Your task to perform on an android device: make emails show in primary in the gmail app Image 0: 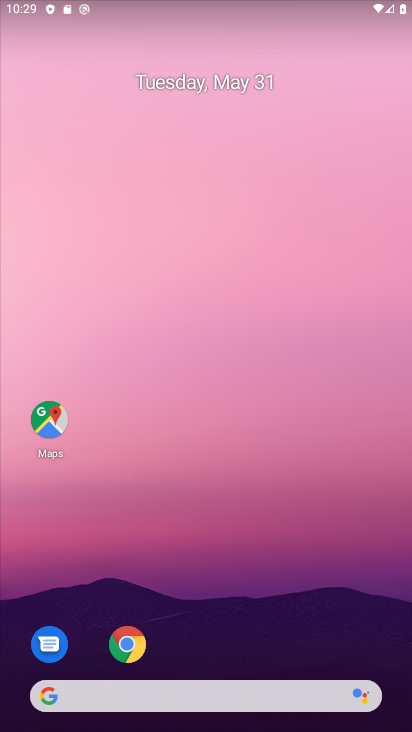
Step 0: drag from (231, 332) to (275, 164)
Your task to perform on an android device: make emails show in primary in the gmail app Image 1: 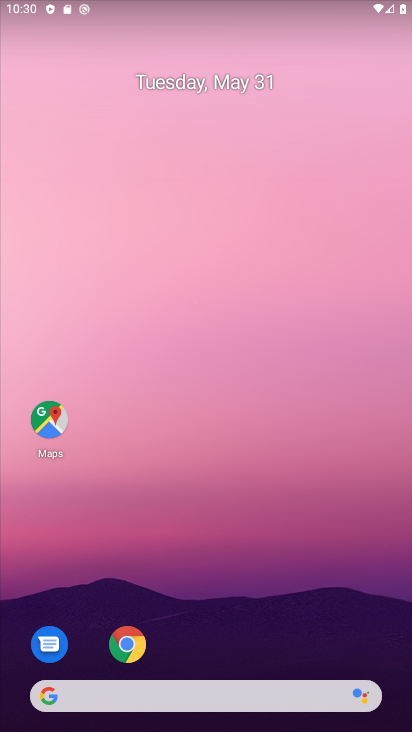
Step 1: drag from (278, 635) to (381, 157)
Your task to perform on an android device: make emails show in primary in the gmail app Image 2: 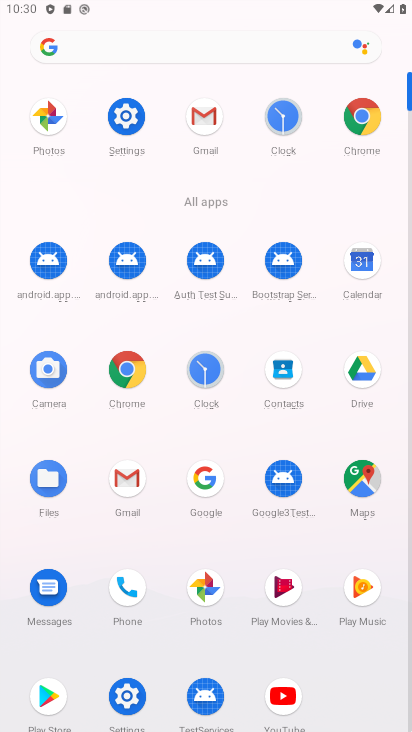
Step 2: click (125, 486)
Your task to perform on an android device: make emails show in primary in the gmail app Image 3: 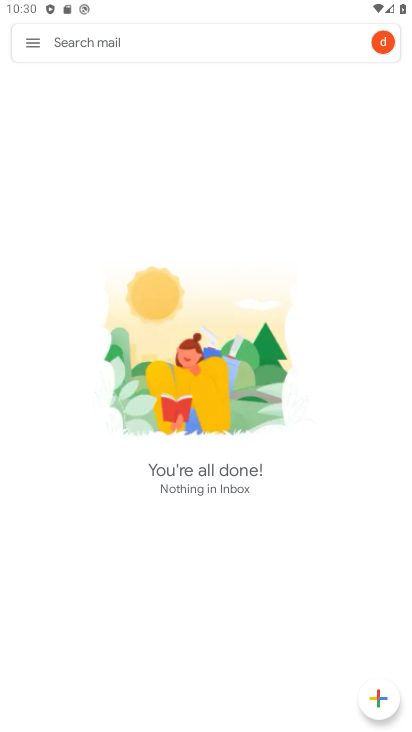
Step 3: click (38, 48)
Your task to perform on an android device: make emails show in primary in the gmail app Image 4: 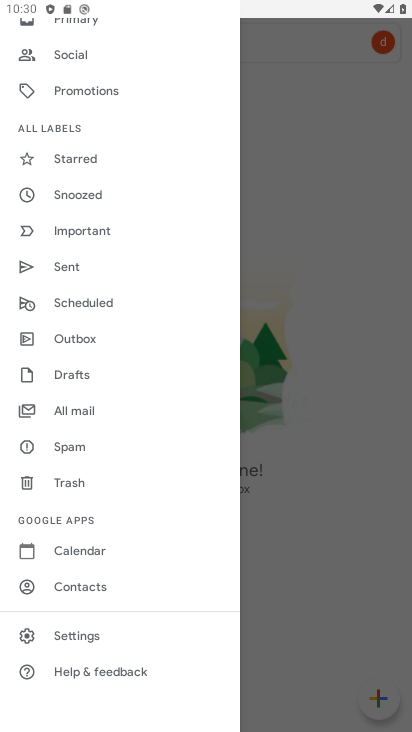
Step 4: click (87, 640)
Your task to perform on an android device: make emails show in primary in the gmail app Image 5: 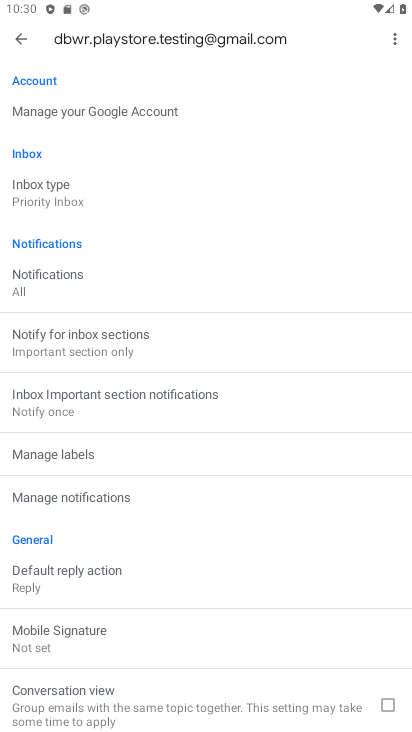
Step 5: click (59, 198)
Your task to perform on an android device: make emails show in primary in the gmail app Image 6: 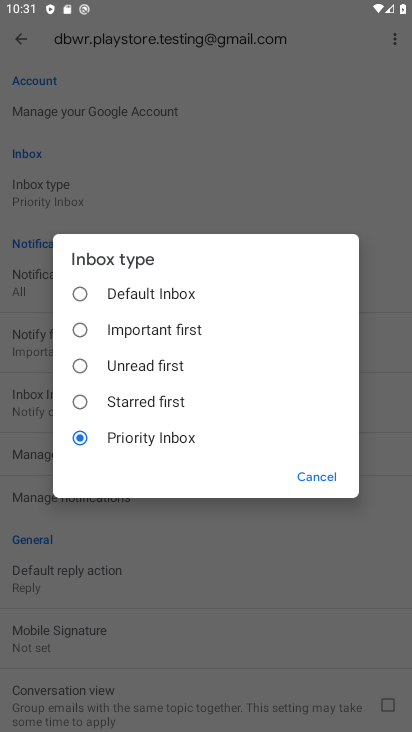
Step 6: click (83, 289)
Your task to perform on an android device: make emails show in primary in the gmail app Image 7: 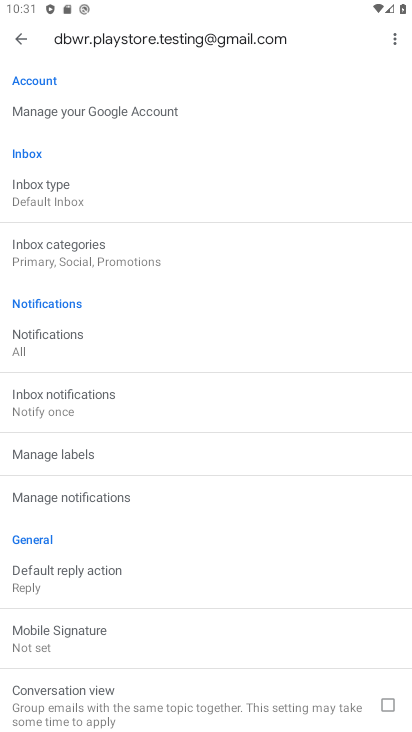
Step 7: click (30, 44)
Your task to perform on an android device: make emails show in primary in the gmail app Image 8: 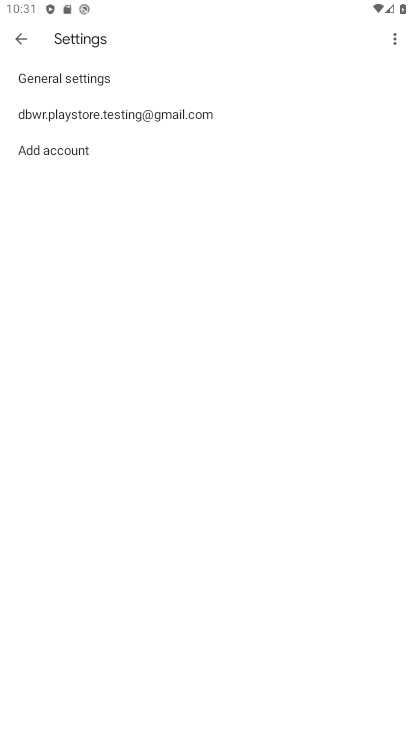
Step 8: click (29, 45)
Your task to perform on an android device: make emails show in primary in the gmail app Image 9: 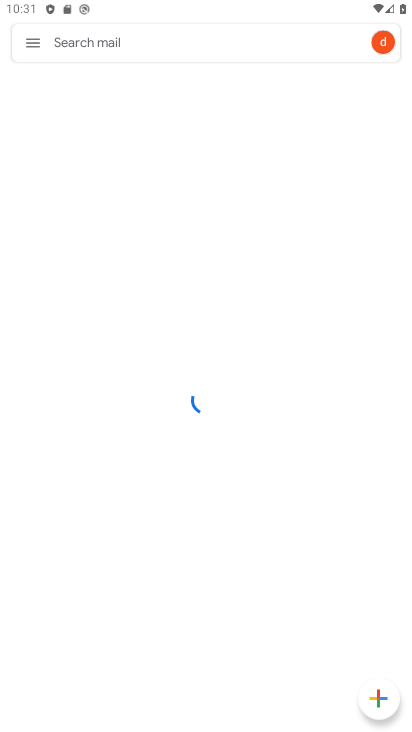
Step 9: click (31, 44)
Your task to perform on an android device: make emails show in primary in the gmail app Image 10: 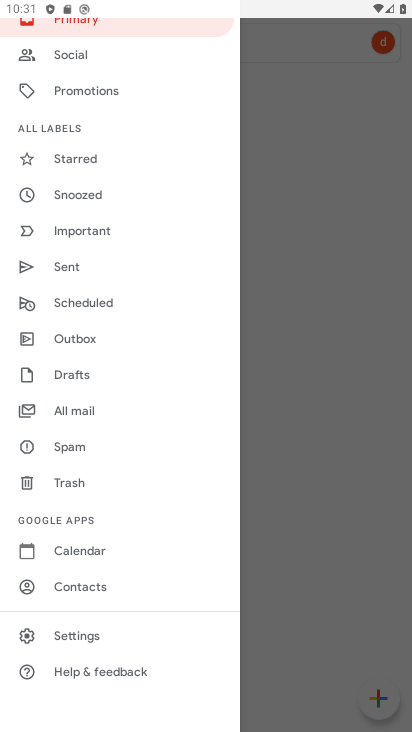
Step 10: drag from (105, 140) to (61, 610)
Your task to perform on an android device: make emails show in primary in the gmail app Image 11: 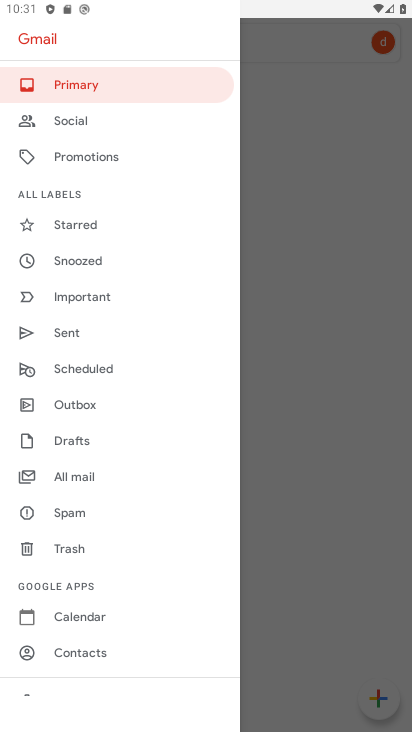
Step 11: click (79, 89)
Your task to perform on an android device: make emails show in primary in the gmail app Image 12: 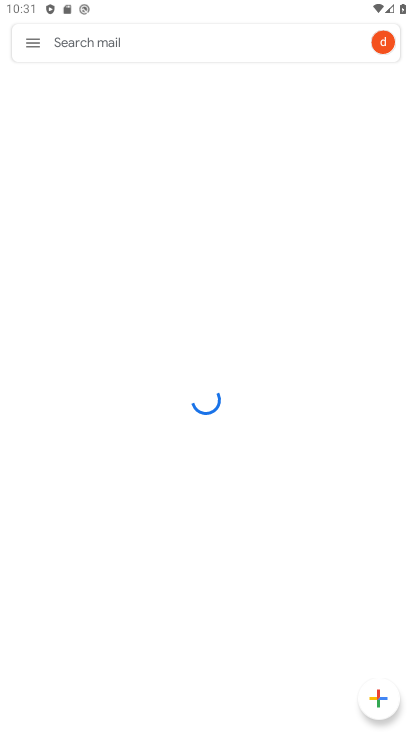
Step 12: task complete